Your task to perform on an android device: Set the phone to "Do not disturb". Image 0: 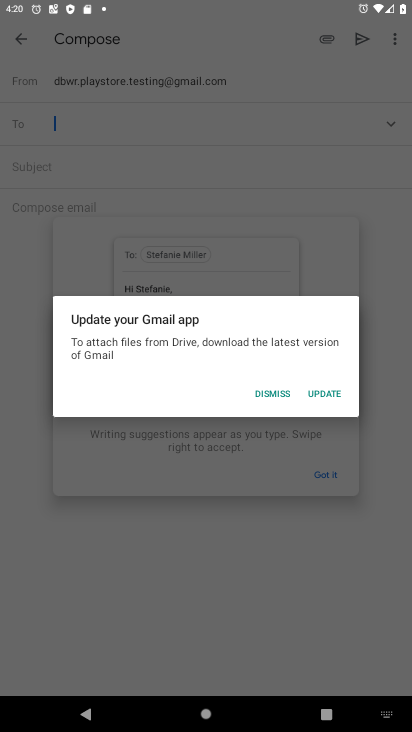
Step 0: press home button
Your task to perform on an android device: Set the phone to "Do not disturb". Image 1: 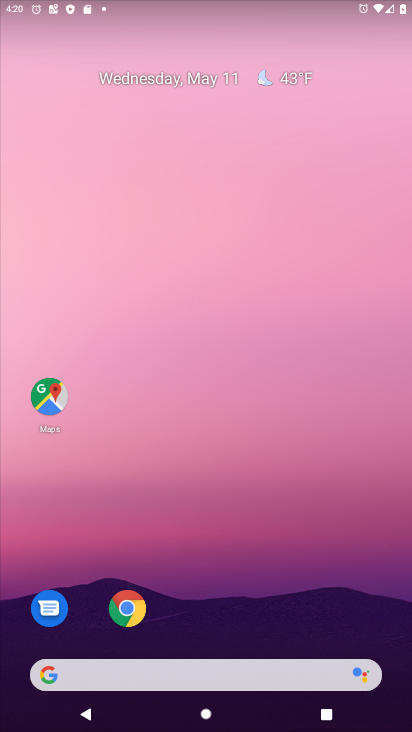
Step 1: drag from (224, 727) to (221, 204)
Your task to perform on an android device: Set the phone to "Do not disturb". Image 2: 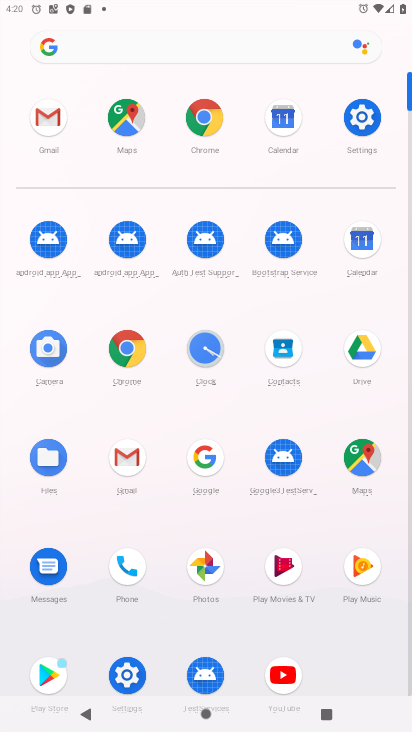
Step 2: click (368, 119)
Your task to perform on an android device: Set the phone to "Do not disturb". Image 3: 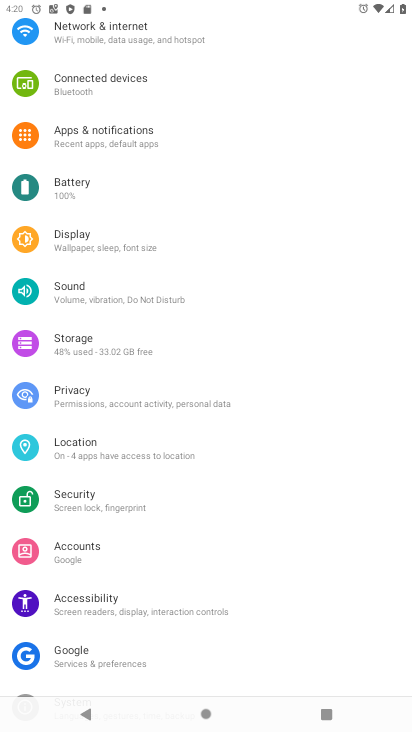
Step 3: click (120, 296)
Your task to perform on an android device: Set the phone to "Do not disturb". Image 4: 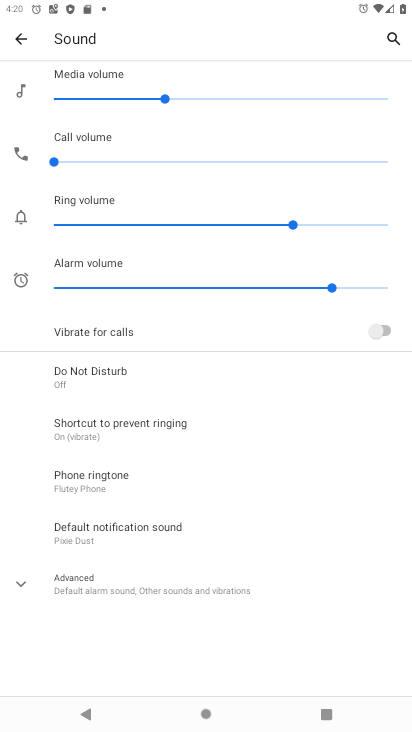
Step 4: click (79, 374)
Your task to perform on an android device: Set the phone to "Do not disturb". Image 5: 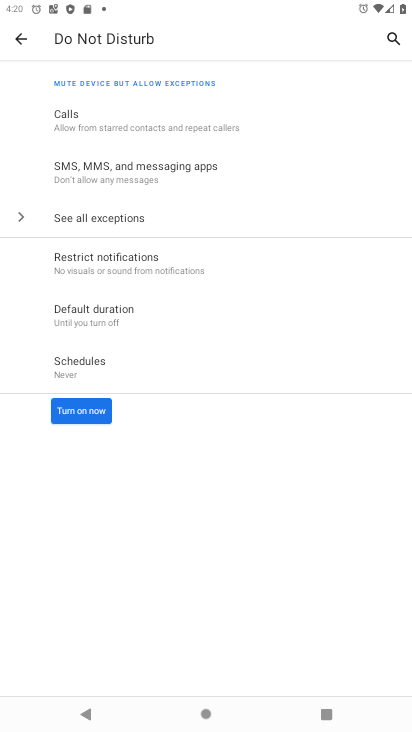
Step 5: click (83, 416)
Your task to perform on an android device: Set the phone to "Do not disturb". Image 6: 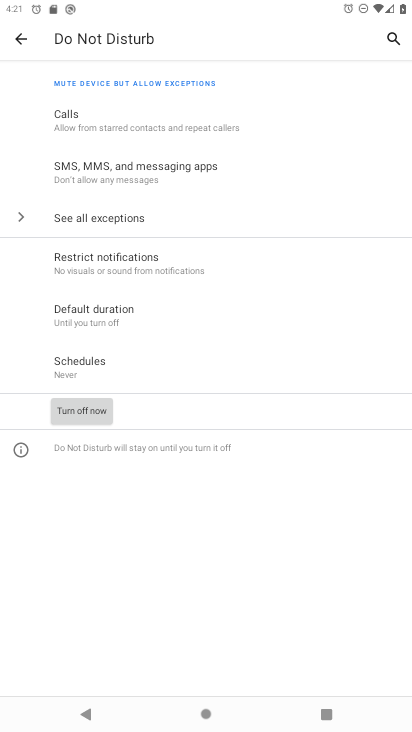
Step 6: task complete